Your task to perform on an android device: Open calendar and show me the third week of next month Image 0: 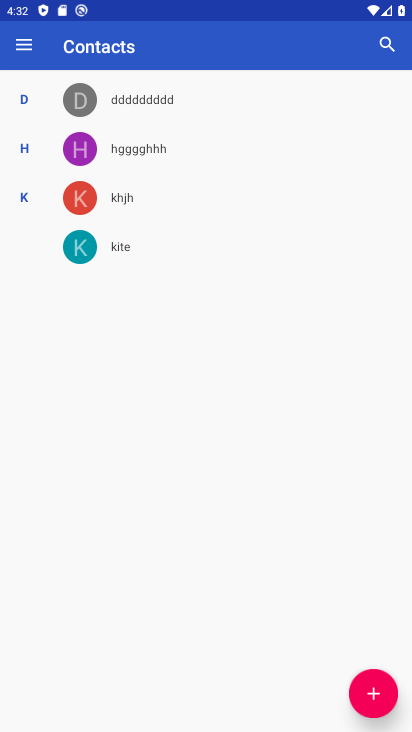
Step 0: press home button
Your task to perform on an android device: Open calendar and show me the third week of next month Image 1: 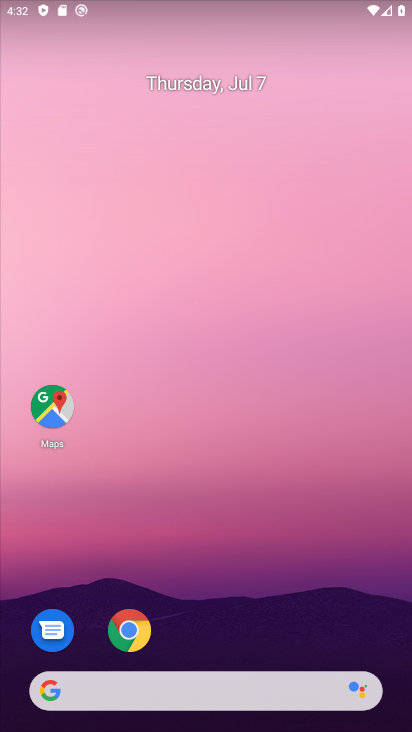
Step 1: drag from (242, 651) to (255, 223)
Your task to perform on an android device: Open calendar and show me the third week of next month Image 2: 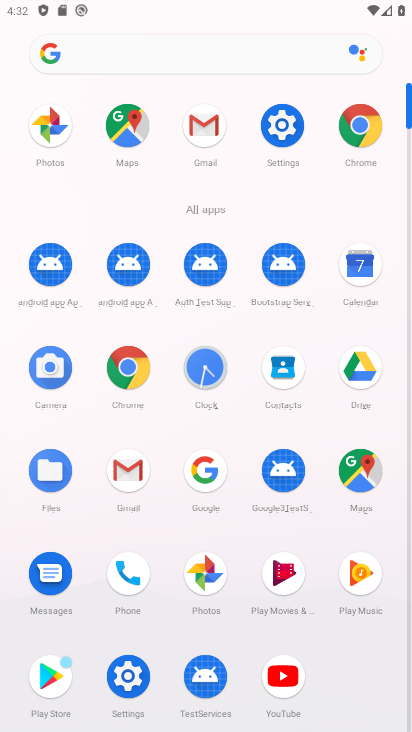
Step 2: click (363, 259)
Your task to perform on an android device: Open calendar and show me the third week of next month Image 3: 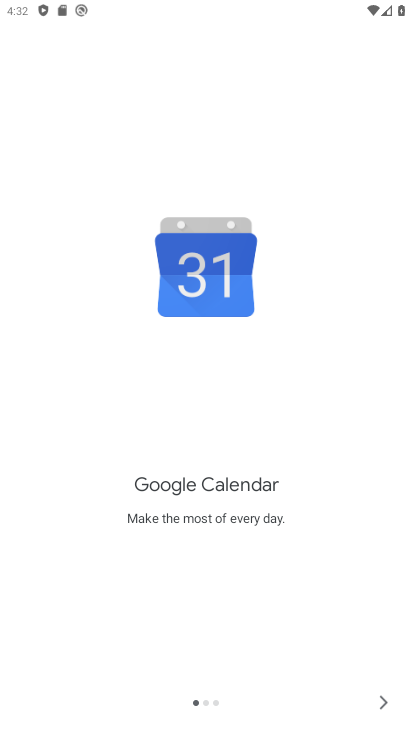
Step 3: click (378, 688)
Your task to perform on an android device: Open calendar and show me the third week of next month Image 4: 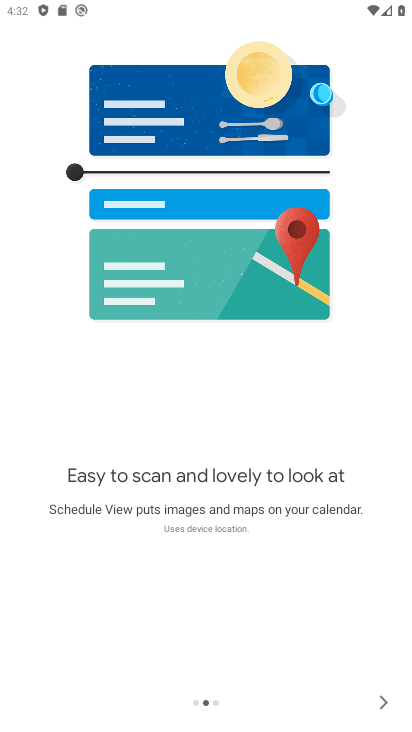
Step 4: click (378, 711)
Your task to perform on an android device: Open calendar and show me the third week of next month Image 5: 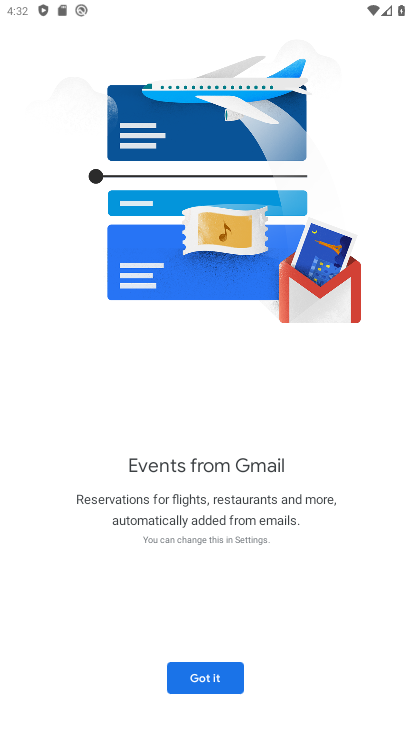
Step 5: click (218, 673)
Your task to perform on an android device: Open calendar and show me the third week of next month Image 6: 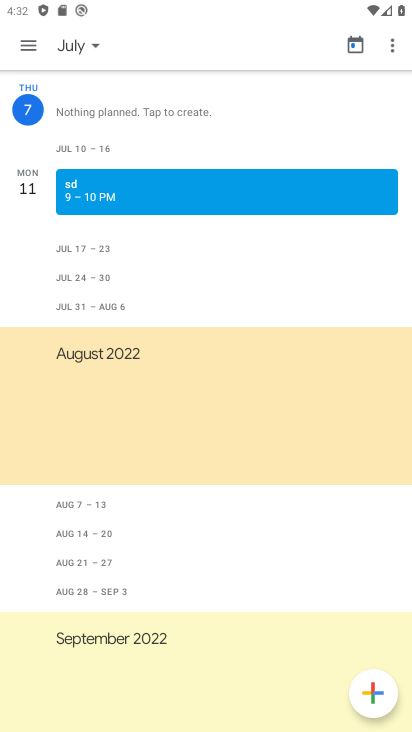
Step 6: click (21, 41)
Your task to perform on an android device: Open calendar and show me the third week of next month Image 7: 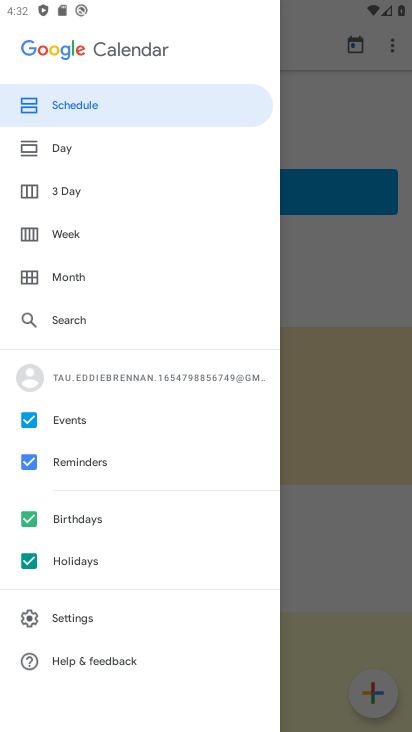
Step 7: click (83, 274)
Your task to perform on an android device: Open calendar and show me the third week of next month Image 8: 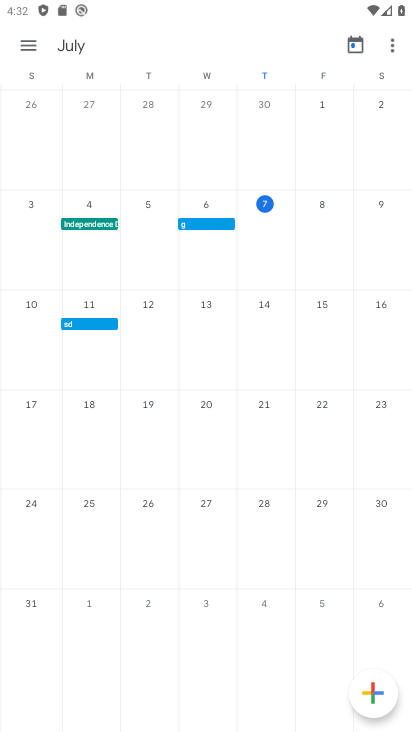
Step 8: task complete